Your task to perform on an android device: Search for vegetarian restaurants on Maps Image 0: 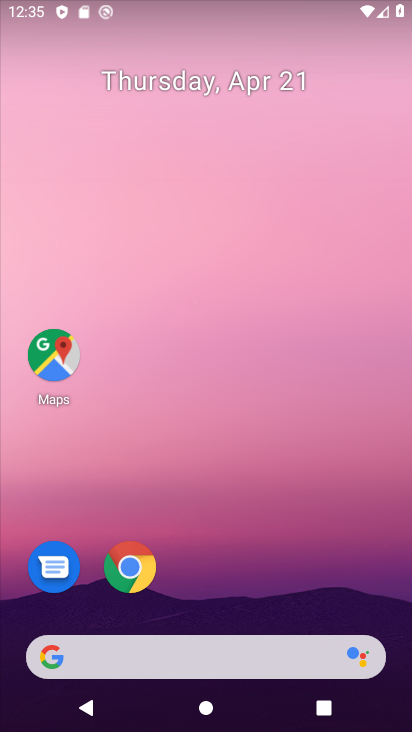
Step 0: drag from (308, 514) to (289, 64)
Your task to perform on an android device: Search for vegetarian restaurants on Maps Image 1: 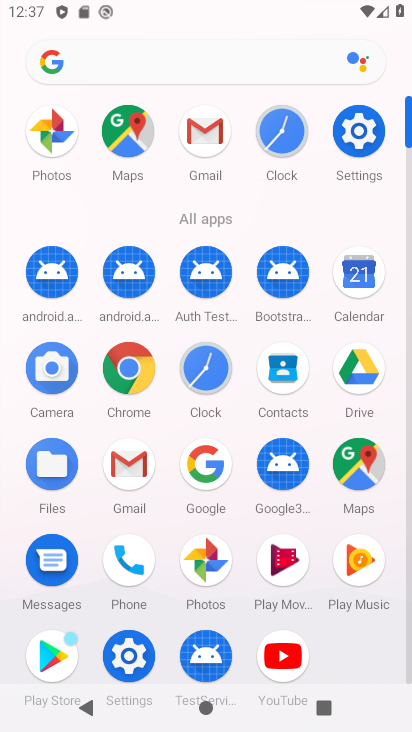
Step 1: click (117, 119)
Your task to perform on an android device: Search for vegetarian restaurants on Maps Image 2: 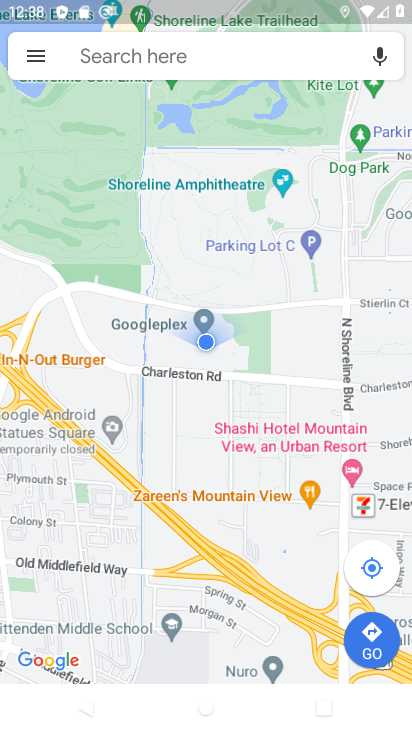
Step 2: click (187, 60)
Your task to perform on an android device: Search for vegetarian restaurants on Maps Image 3: 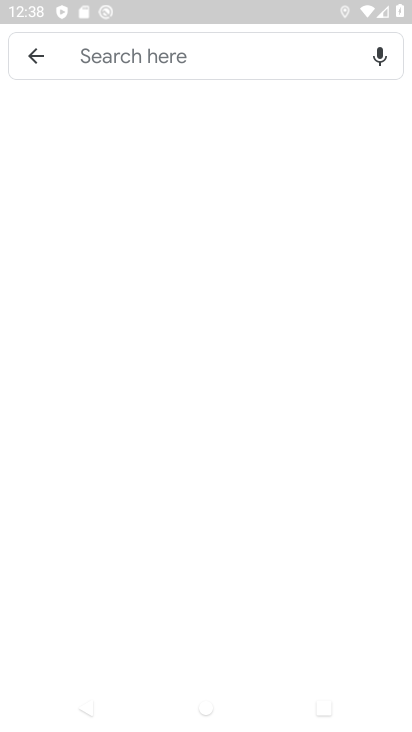
Step 3: click (201, 60)
Your task to perform on an android device: Search for vegetarian restaurants on Maps Image 4: 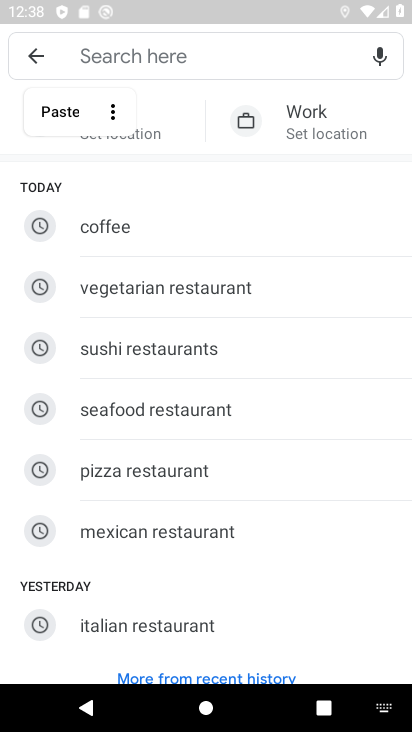
Step 4: type "vegetarian restaurants"
Your task to perform on an android device: Search for vegetarian restaurants on Maps Image 5: 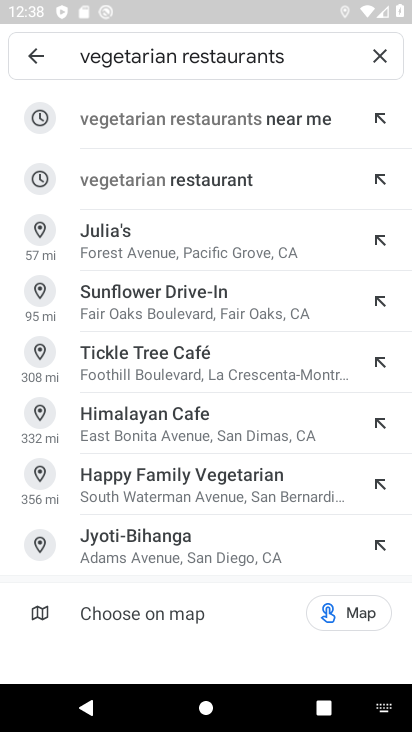
Step 5: click (121, 179)
Your task to perform on an android device: Search for vegetarian restaurants on Maps Image 6: 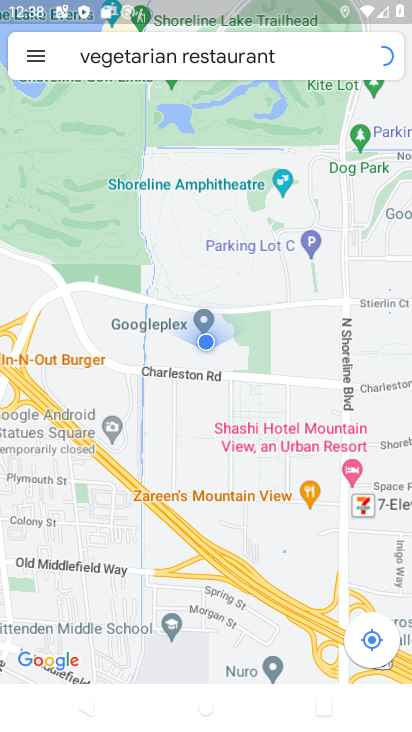
Step 6: task complete